Your task to perform on an android device: Open battery settings Image 0: 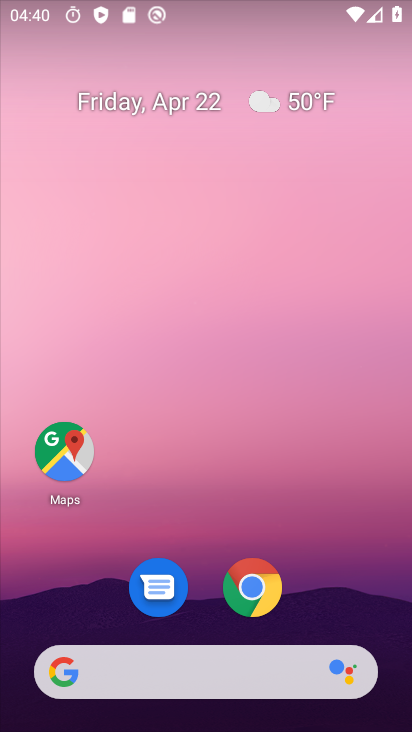
Step 0: drag from (368, 577) to (377, 23)
Your task to perform on an android device: Open battery settings Image 1: 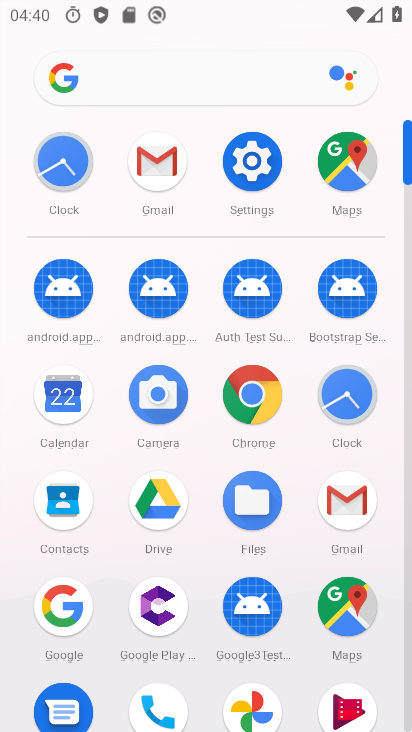
Step 1: click (254, 168)
Your task to perform on an android device: Open battery settings Image 2: 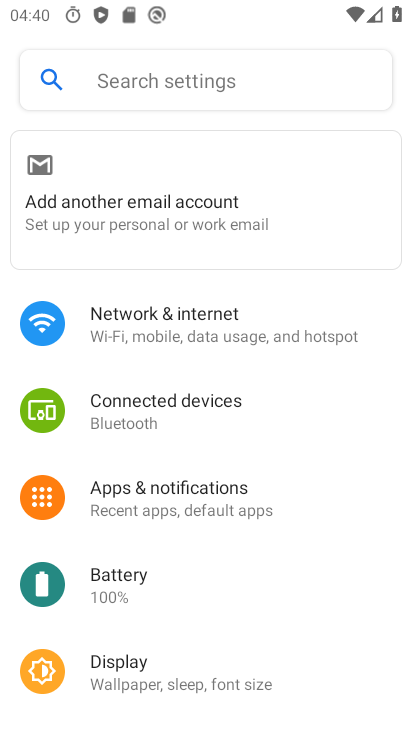
Step 2: click (117, 587)
Your task to perform on an android device: Open battery settings Image 3: 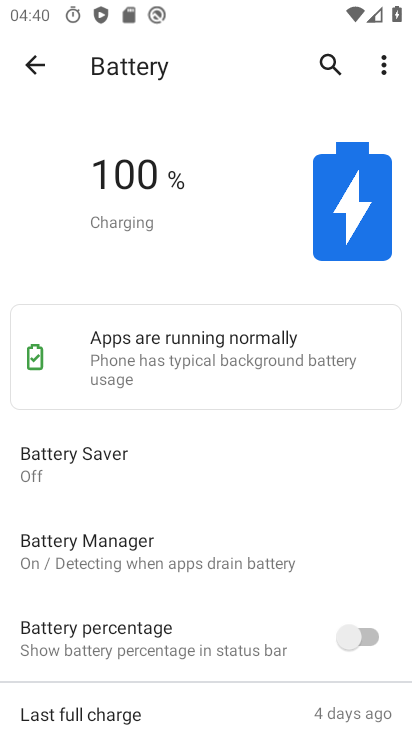
Step 3: task complete